Your task to perform on an android device: toggle sleep mode Image 0: 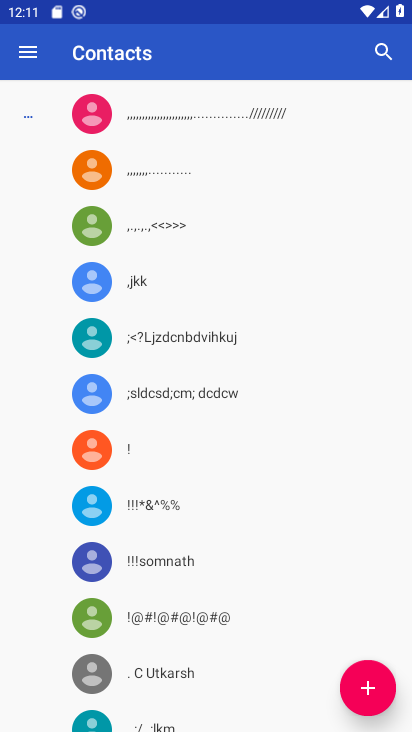
Step 0: press back button
Your task to perform on an android device: toggle sleep mode Image 1: 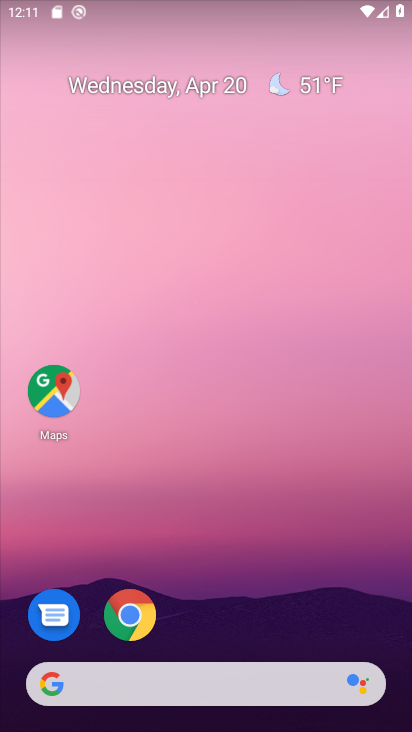
Step 1: drag from (210, 701) to (249, 179)
Your task to perform on an android device: toggle sleep mode Image 2: 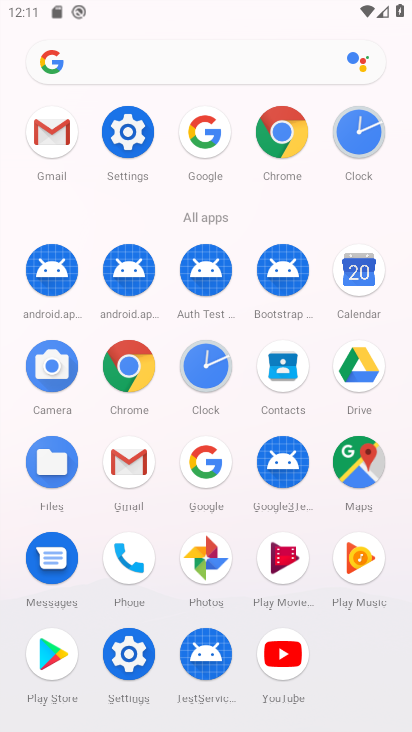
Step 2: click (142, 665)
Your task to perform on an android device: toggle sleep mode Image 3: 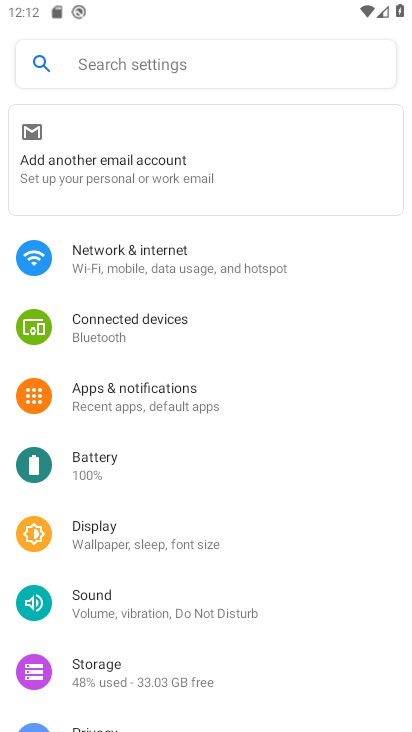
Step 3: click (144, 555)
Your task to perform on an android device: toggle sleep mode Image 4: 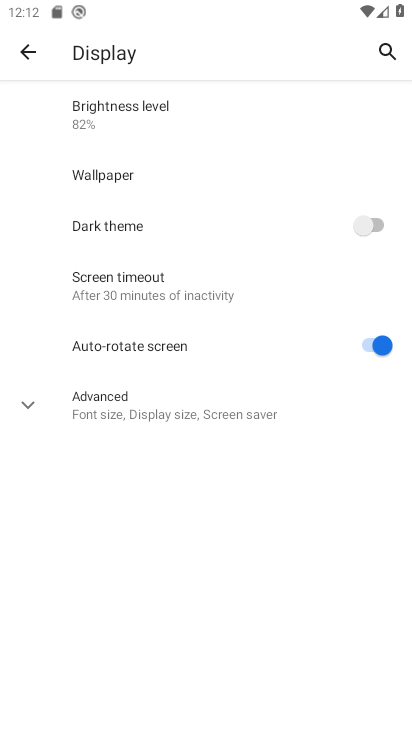
Step 4: click (177, 422)
Your task to perform on an android device: toggle sleep mode Image 5: 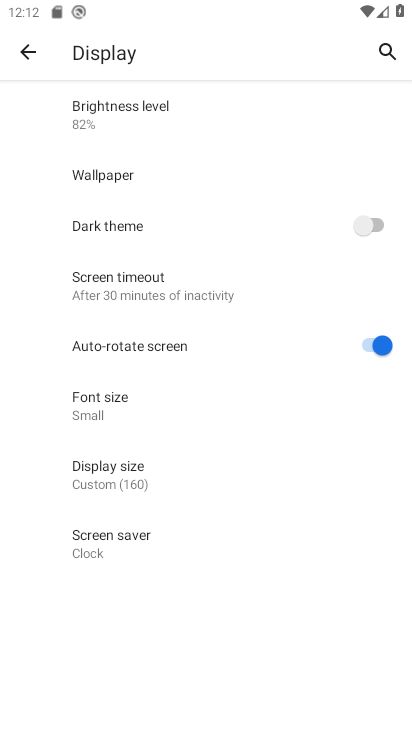
Step 5: task complete